Your task to perform on an android device: set an alarm Image 0: 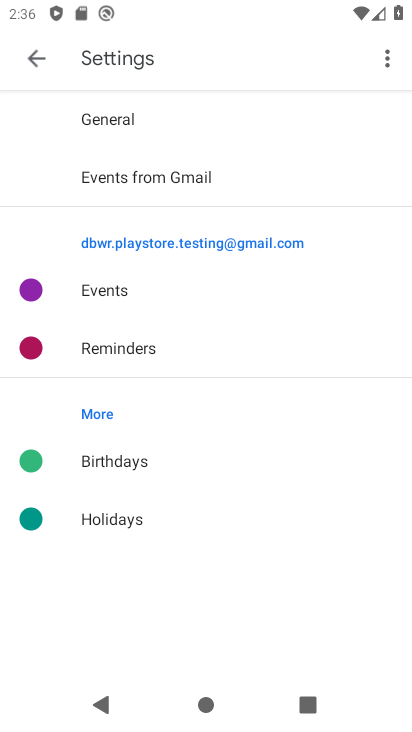
Step 0: press home button
Your task to perform on an android device: set an alarm Image 1: 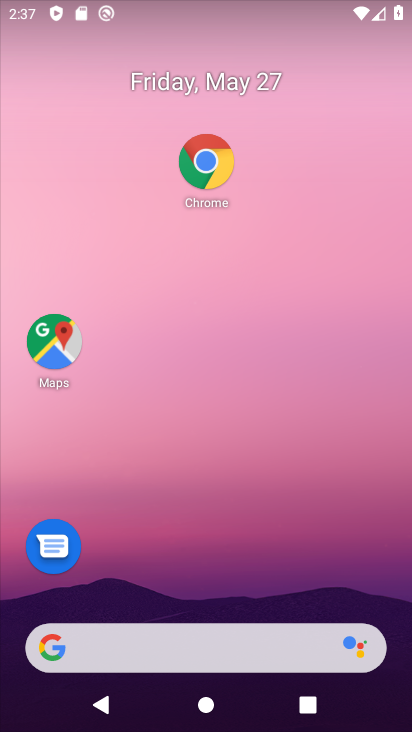
Step 1: drag from (234, 422) to (283, 120)
Your task to perform on an android device: set an alarm Image 2: 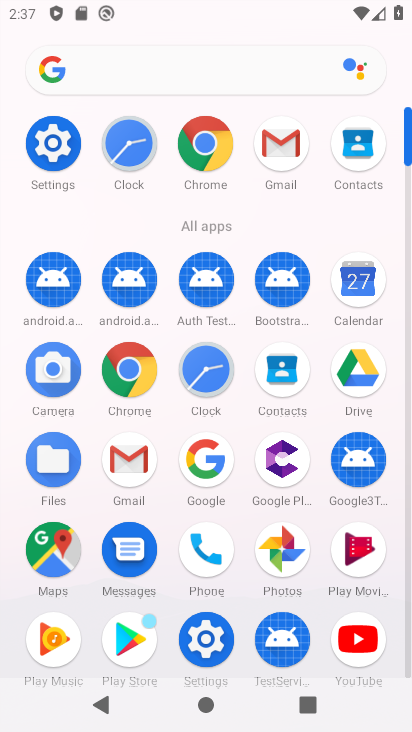
Step 2: click (214, 370)
Your task to perform on an android device: set an alarm Image 3: 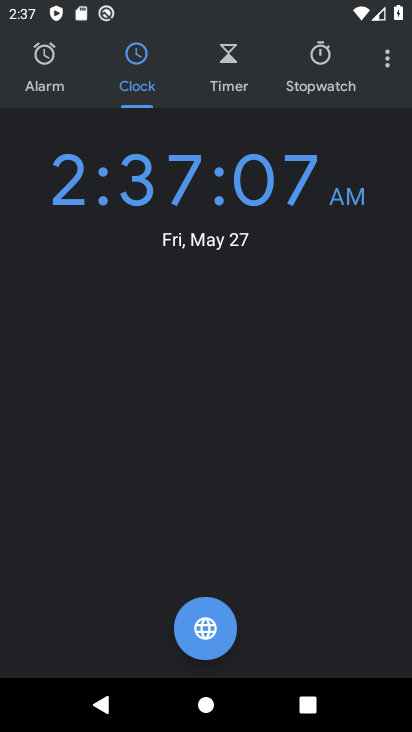
Step 3: click (32, 89)
Your task to perform on an android device: set an alarm Image 4: 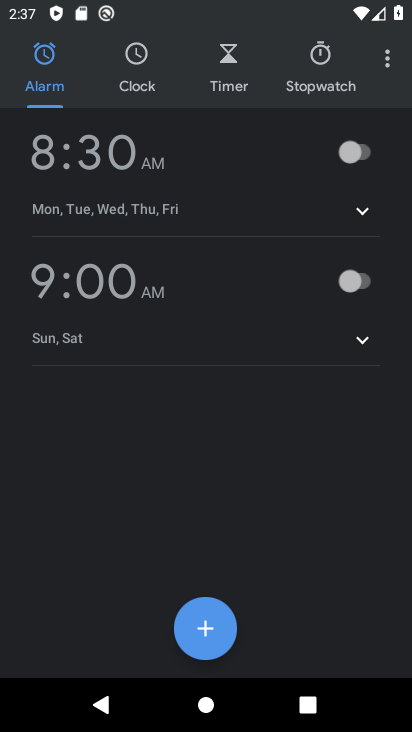
Step 4: click (344, 156)
Your task to perform on an android device: set an alarm Image 5: 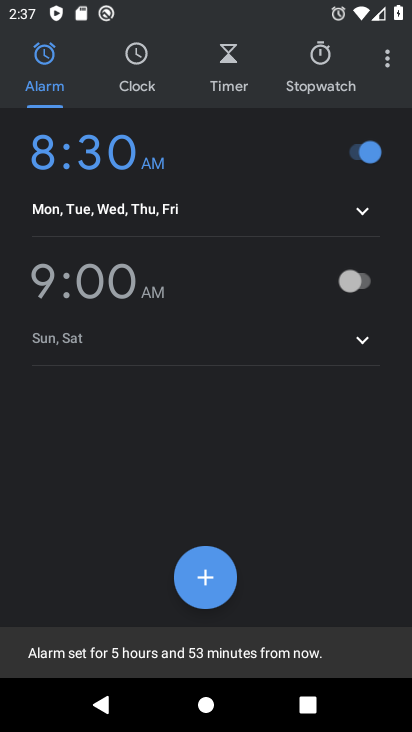
Step 5: task complete